Your task to perform on an android device: Turn on the flashlight Image 0: 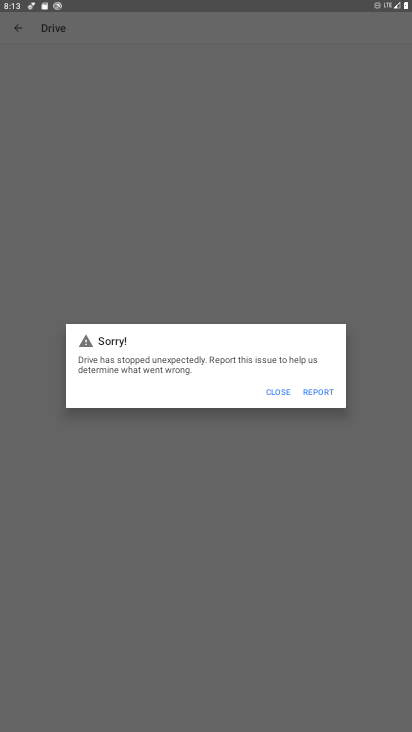
Step 0: press home button
Your task to perform on an android device: Turn on the flashlight Image 1: 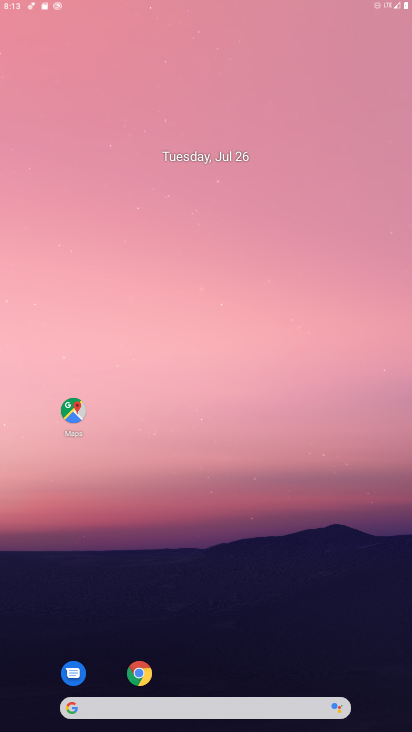
Step 1: drag from (378, 651) to (63, 100)
Your task to perform on an android device: Turn on the flashlight Image 2: 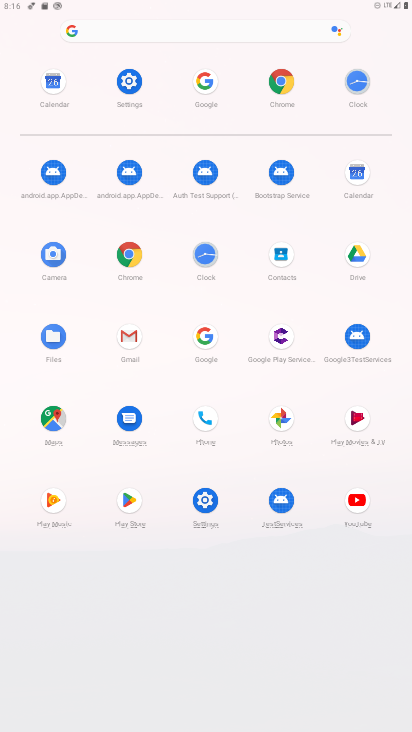
Step 2: click (207, 485)
Your task to perform on an android device: Turn on the flashlight Image 3: 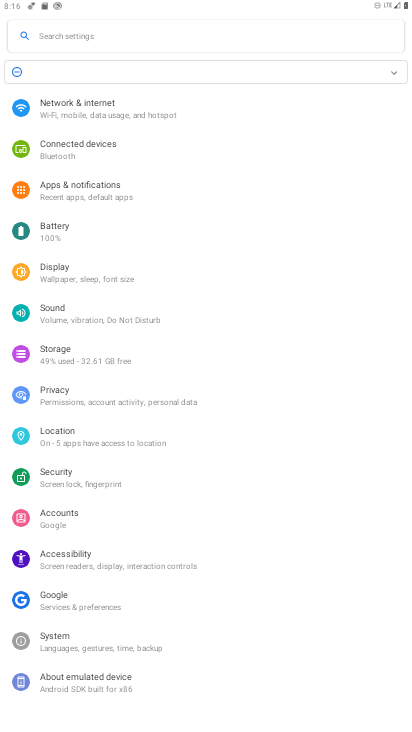
Step 3: task complete